Your task to perform on an android device: Search for the best rated Bluetooth earbuds on Ali express Image 0: 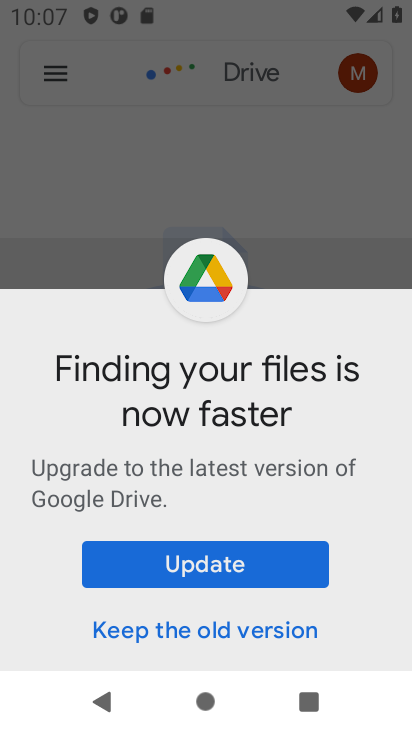
Step 0: press home button
Your task to perform on an android device: Search for the best rated Bluetooth earbuds on Ali express Image 1: 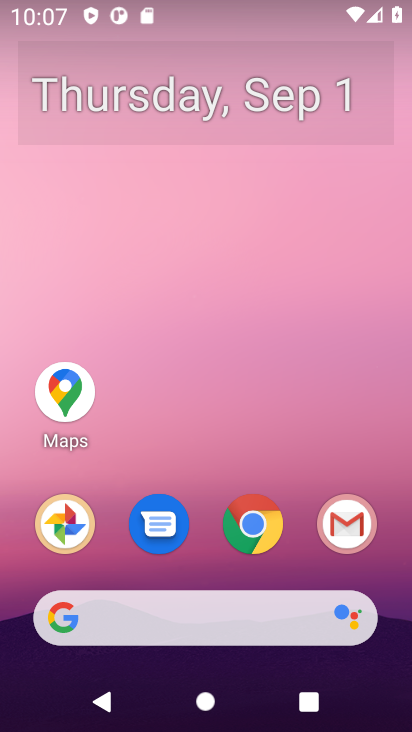
Step 1: drag from (385, 511) to (383, 113)
Your task to perform on an android device: Search for the best rated Bluetooth earbuds on Ali express Image 2: 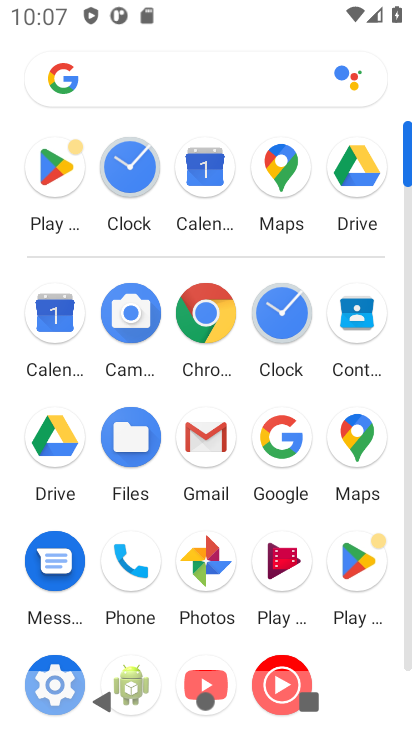
Step 2: click (211, 321)
Your task to perform on an android device: Search for the best rated Bluetooth earbuds on Ali express Image 3: 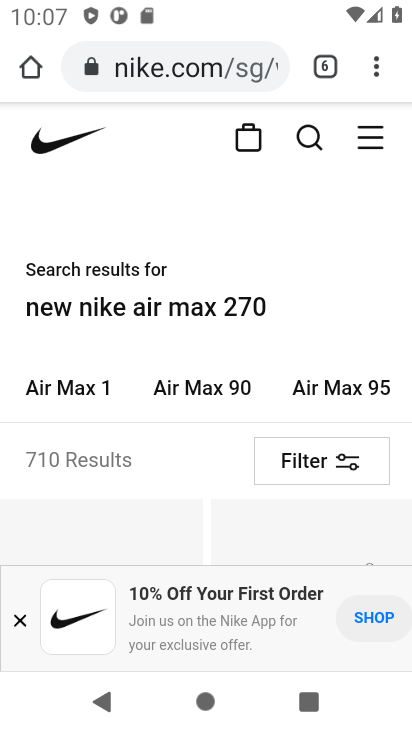
Step 3: click (204, 68)
Your task to perform on an android device: Search for the best rated Bluetooth earbuds on Ali express Image 4: 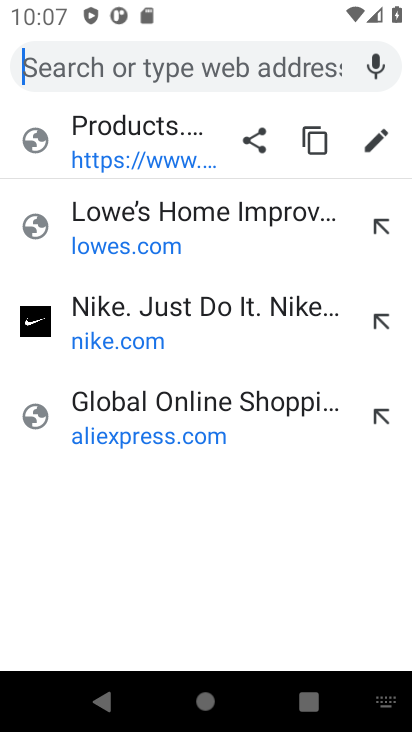
Step 4: type "aliexpress"
Your task to perform on an android device: Search for the best rated Bluetooth earbuds on Ali express Image 5: 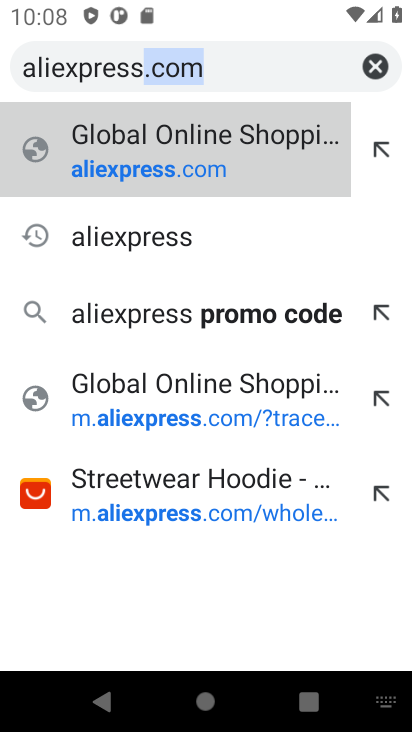
Step 5: click (153, 242)
Your task to perform on an android device: Search for the best rated Bluetooth earbuds on Ali express Image 6: 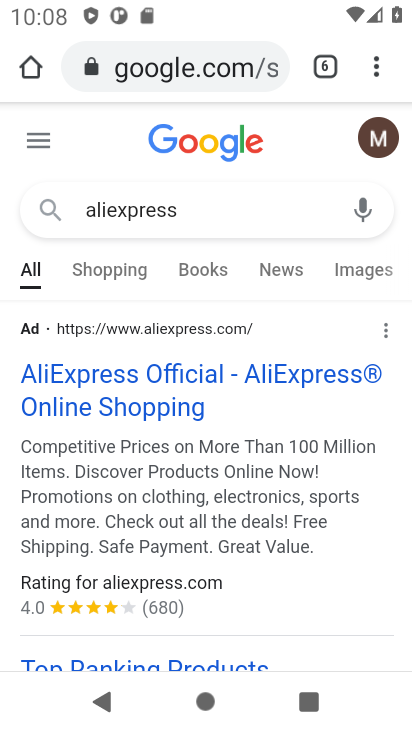
Step 6: click (161, 390)
Your task to perform on an android device: Search for the best rated Bluetooth earbuds on Ali express Image 7: 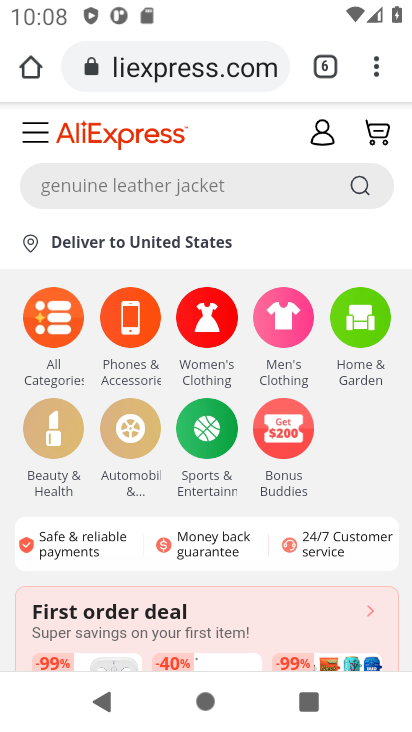
Step 7: click (200, 179)
Your task to perform on an android device: Search for the best rated Bluetooth earbuds on Ali express Image 8: 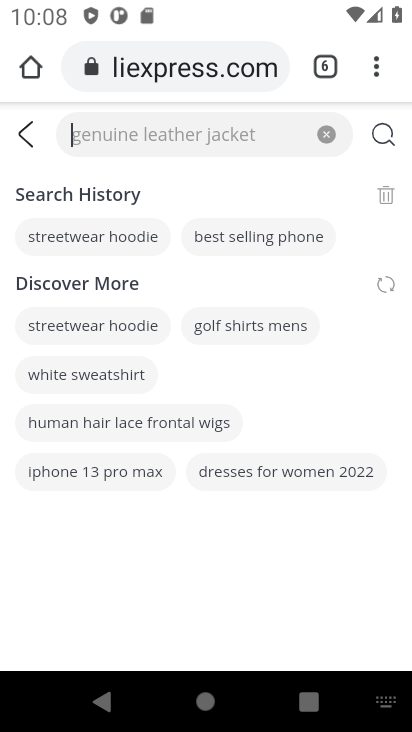
Step 8: type " best rated Bluetooth earbuds "
Your task to perform on an android device: Search for the best rated Bluetooth earbuds on Ali express Image 9: 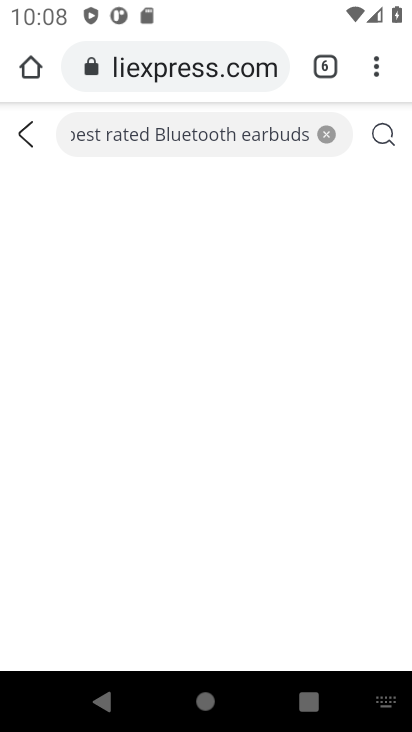
Step 9: press enter
Your task to perform on an android device: Search for the best rated Bluetooth earbuds on Ali express Image 10: 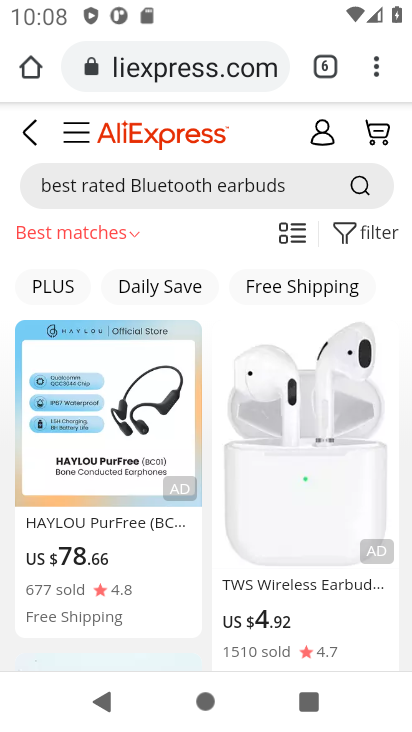
Step 10: task complete